Your task to perform on an android device: turn off notifications settings in the gmail app Image 0: 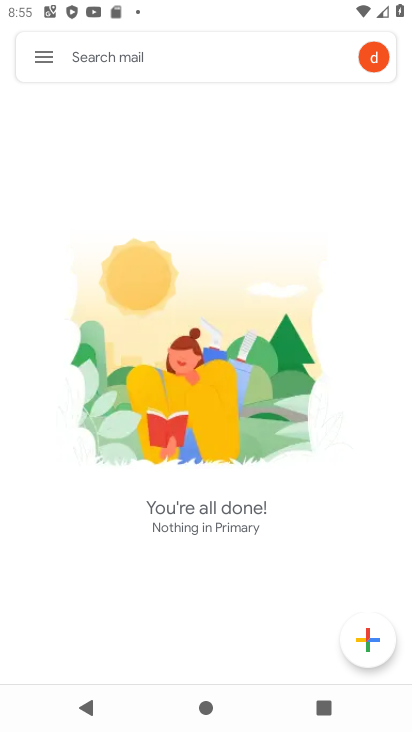
Step 0: press home button
Your task to perform on an android device: turn off notifications settings in the gmail app Image 1: 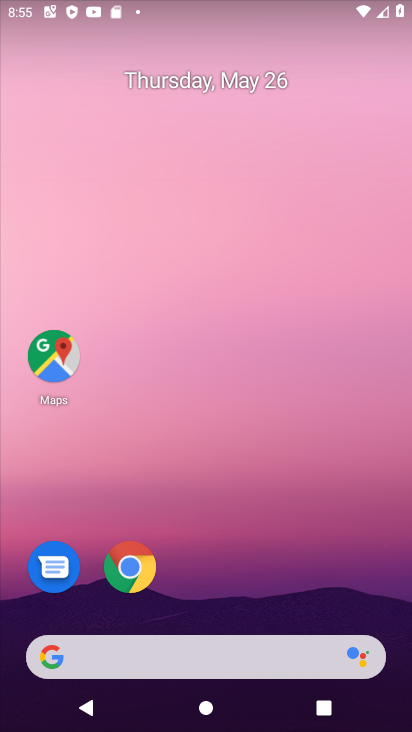
Step 1: drag from (152, 657) to (300, 133)
Your task to perform on an android device: turn off notifications settings in the gmail app Image 2: 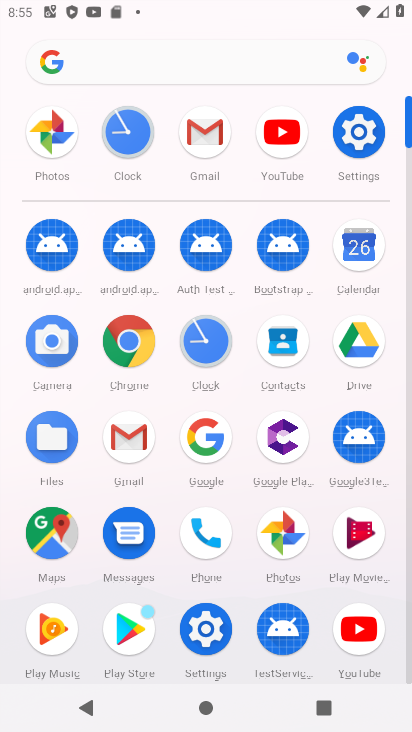
Step 2: click (204, 137)
Your task to perform on an android device: turn off notifications settings in the gmail app Image 3: 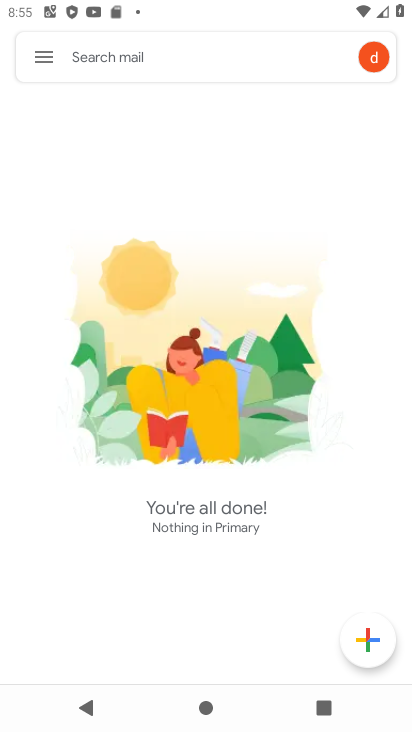
Step 3: click (40, 60)
Your task to perform on an android device: turn off notifications settings in the gmail app Image 4: 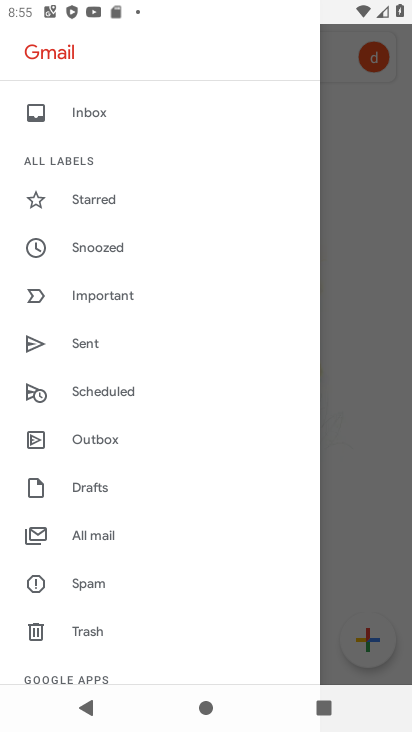
Step 4: drag from (135, 657) to (258, 224)
Your task to perform on an android device: turn off notifications settings in the gmail app Image 5: 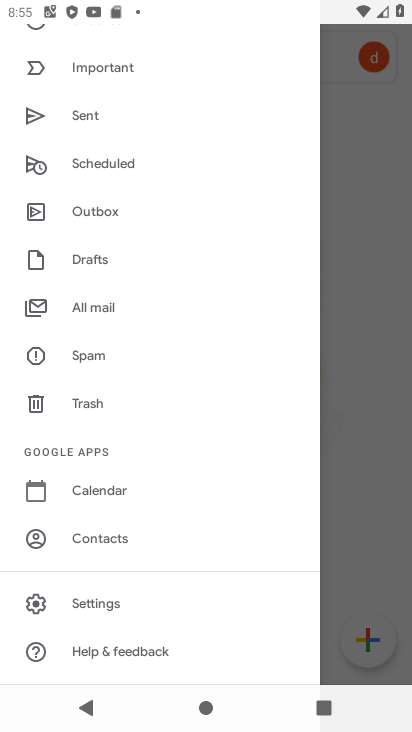
Step 5: click (90, 607)
Your task to perform on an android device: turn off notifications settings in the gmail app Image 6: 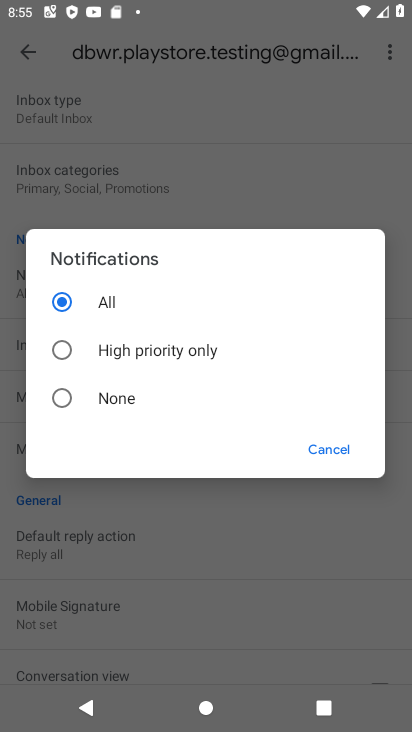
Step 6: click (59, 395)
Your task to perform on an android device: turn off notifications settings in the gmail app Image 7: 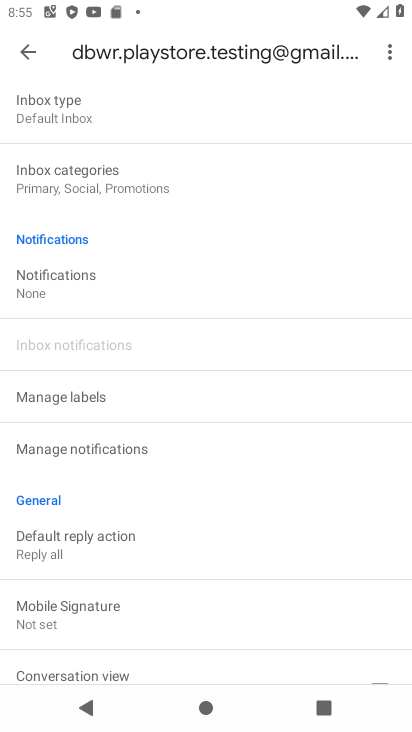
Step 7: task complete